Your task to perform on an android device: Open Google Maps Image 0: 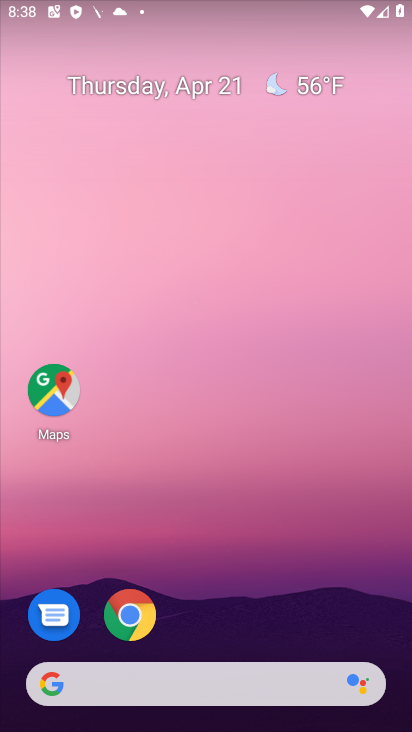
Step 0: click (54, 386)
Your task to perform on an android device: Open Google Maps Image 1: 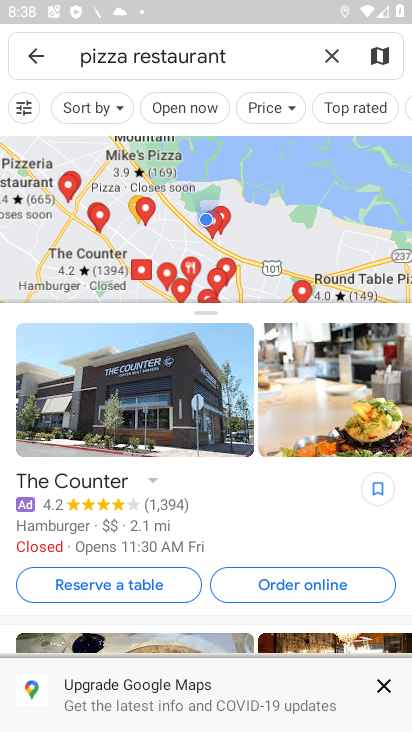
Step 1: task complete